Your task to perform on an android device: toggle data saver in the chrome app Image 0: 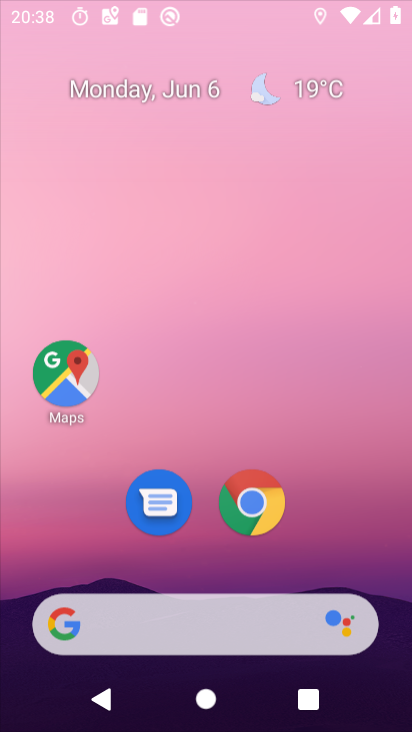
Step 0: click (327, 91)
Your task to perform on an android device: toggle data saver in the chrome app Image 1: 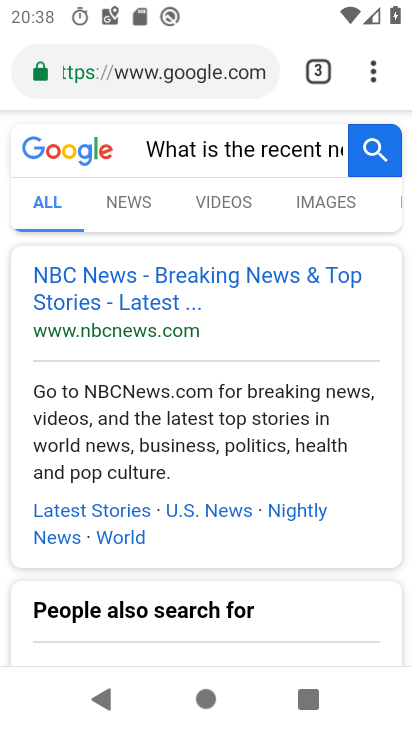
Step 1: press home button
Your task to perform on an android device: toggle data saver in the chrome app Image 2: 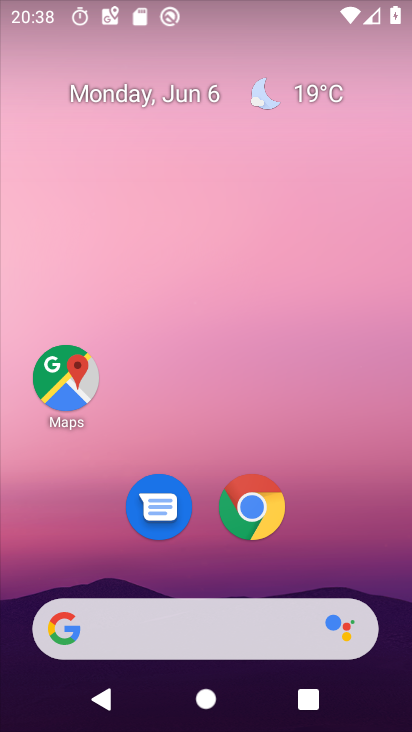
Step 2: click (238, 515)
Your task to perform on an android device: toggle data saver in the chrome app Image 3: 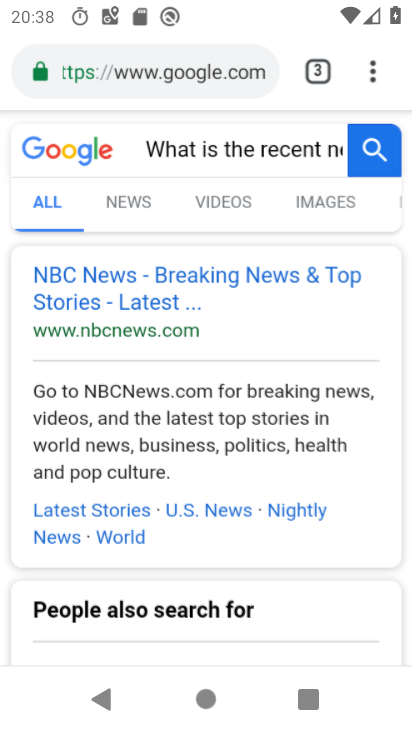
Step 3: drag from (379, 64) to (115, 495)
Your task to perform on an android device: toggle data saver in the chrome app Image 4: 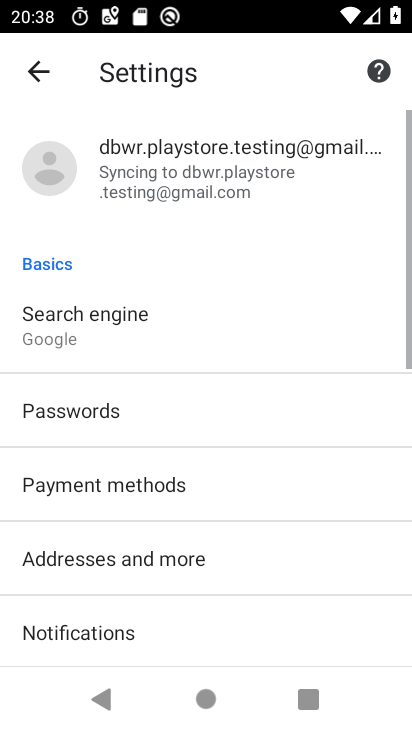
Step 4: drag from (130, 600) to (391, 5)
Your task to perform on an android device: toggle data saver in the chrome app Image 5: 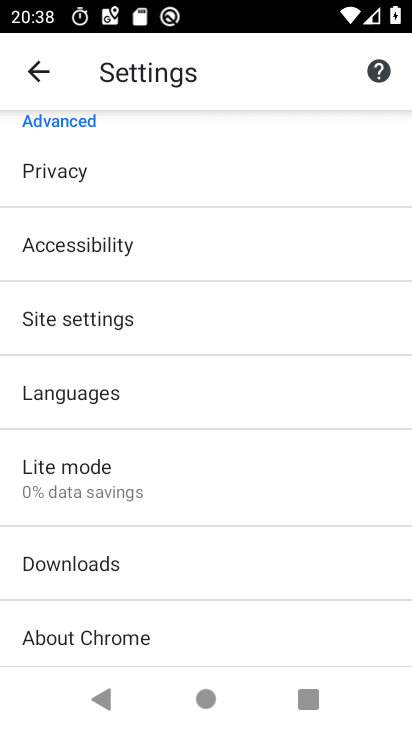
Step 5: click (108, 488)
Your task to perform on an android device: toggle data saver in the chrome app Image 6: 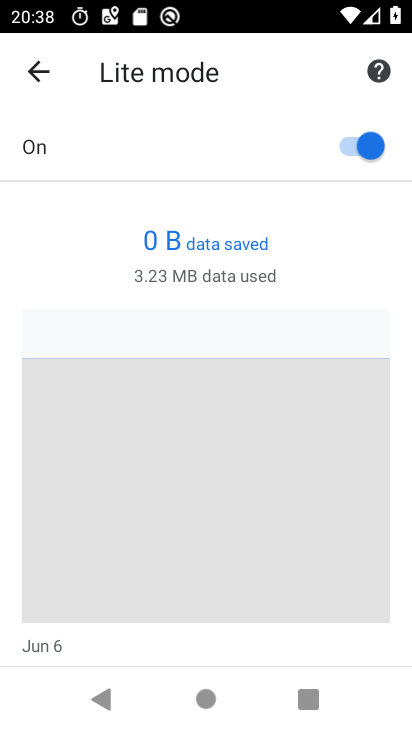
Step 6: task complete